Your task to perform on an android device: turn on showing notifications on the lock screen Image 0: 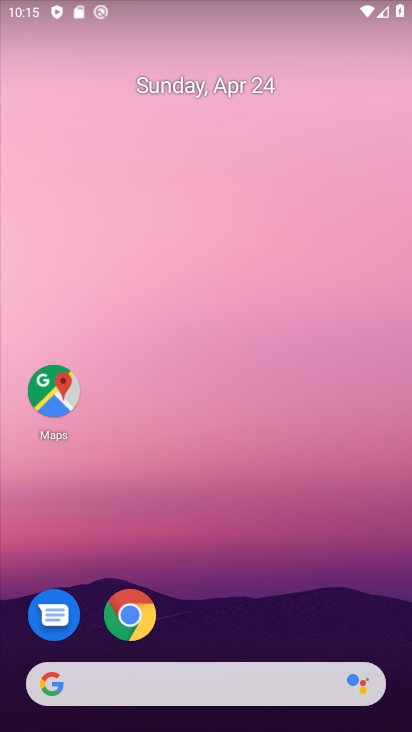
Step 0: drag from (233, 596) to (246, 111)
Your task to perform on an android device: turn on showing notifications on the lock screen Image 1: 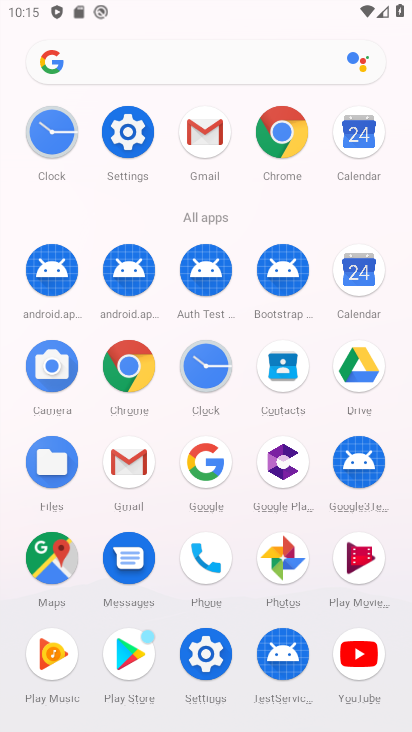
Step 1: click (125, 128)
Your task to perform on an android device: turn on showing notifications on the lock screen Image 2: 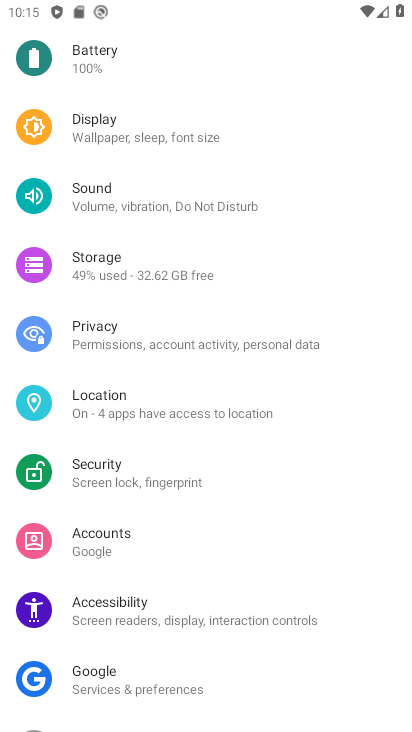
Step 2: drag from (131, 93) to (141, 574)
Your task to perform on an android device: turn on showing notifications on the lock screen Image 3: 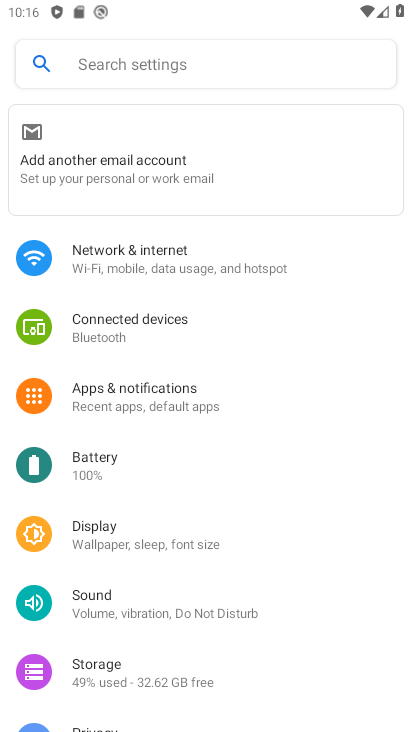
Step 3: click (130, 393)
Your task to perform on an android device: turn on showing notifications on the lock screen Image 4: 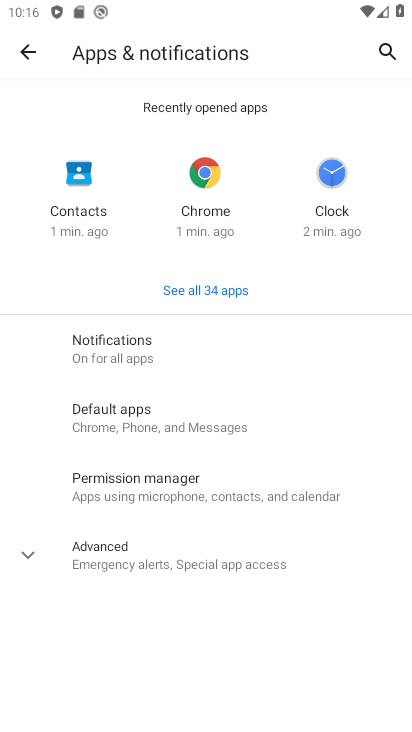
Step 4: click (159, 351)
Your task to perform on an android device: turn on showing notifications on the lock screen Image 5: 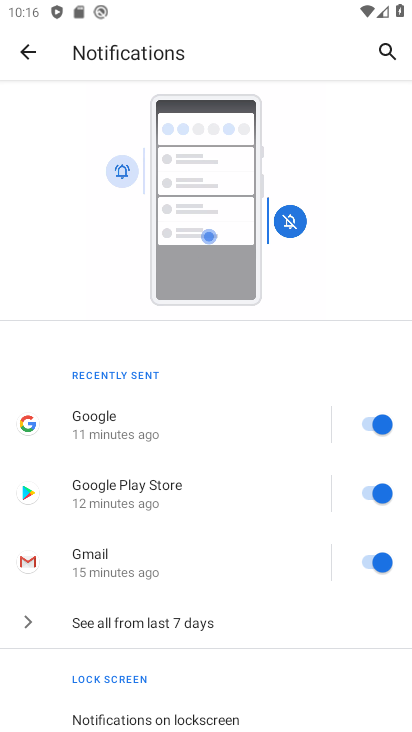
Step 5: drag from (203, 659) to (241, 238)
Your task to perform on an android device: turn on showing notifications on the lock screen Image 6: 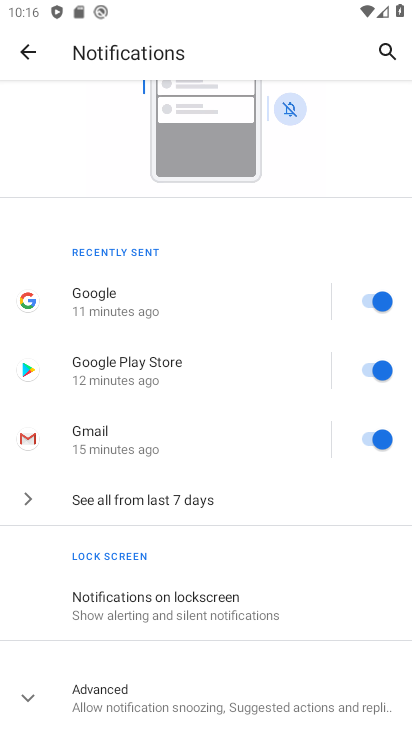
Step 6: click (257, 598)
Your task to perform on an android device: turn on showing notifications on the lock screen Image 7: 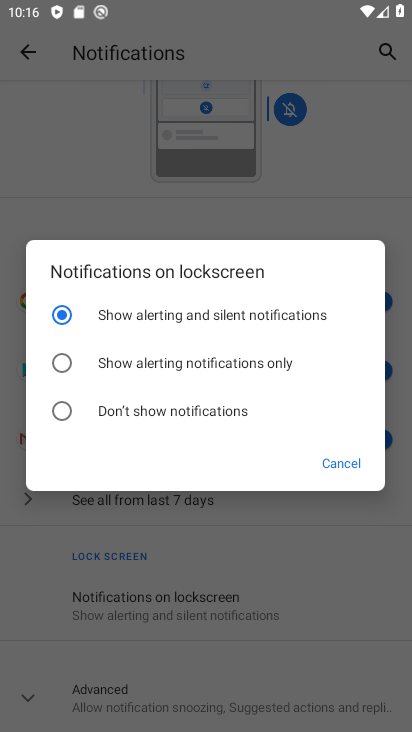
Step 7: click (57, 356)
Your task to perform on an android device: turn on showing notifications on the lock screen Image 8: 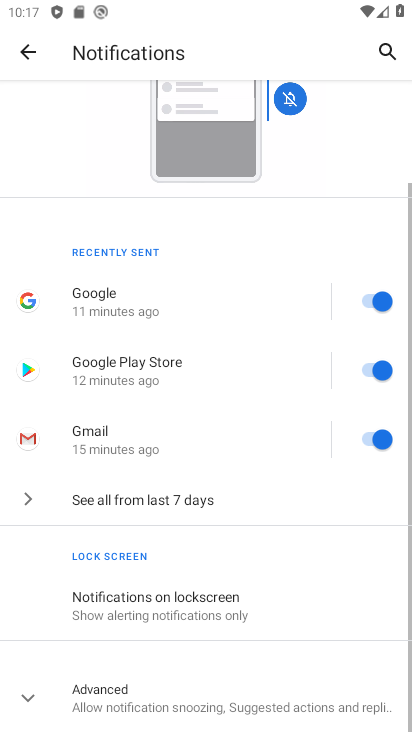
Step 8: task complete